Your task to perform on an android device: change the clock display to digital Image 0: 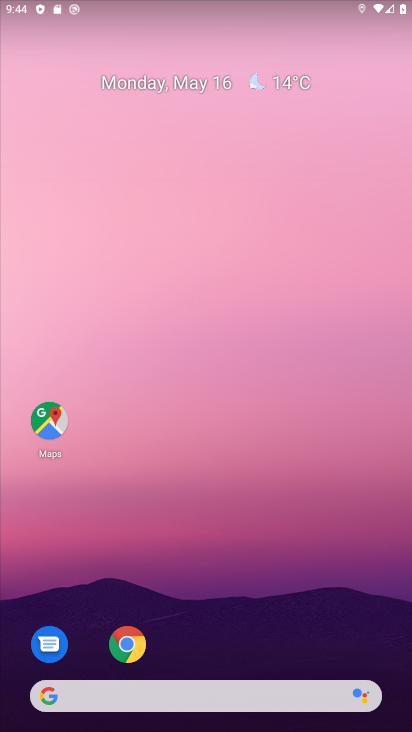
Step 0: drag from (238, 630) to (258, 227)
Your task to perform on an android device: change the clock display to digital Image 1: 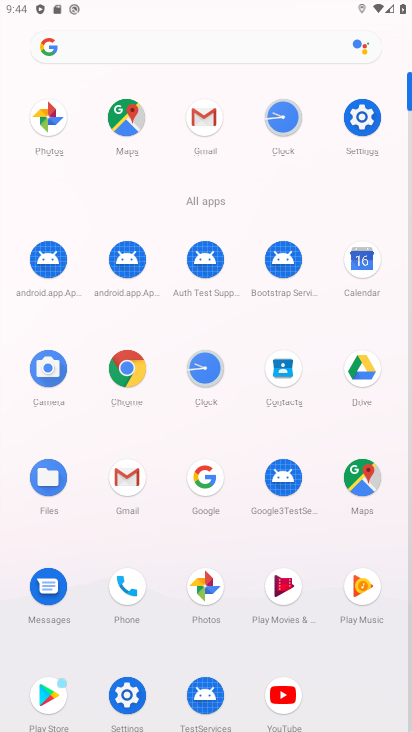
Step 1: click (207, 361)
Your task to perform on an android device: change the clock display to digital Image 2: 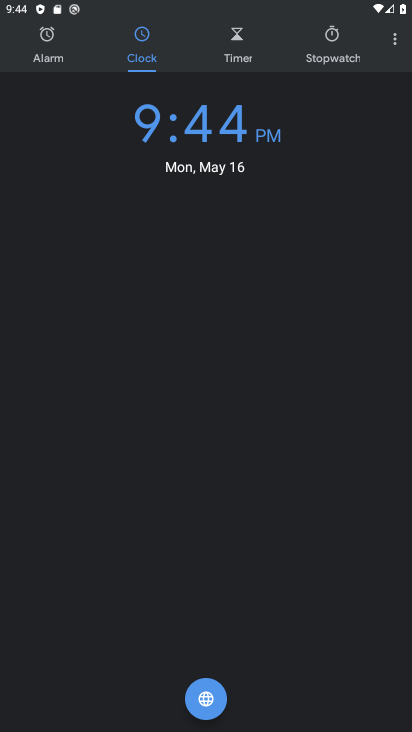
Step 2: click (399, 55)
Your task to perform on an android device: change the clock display to digital Image 3: 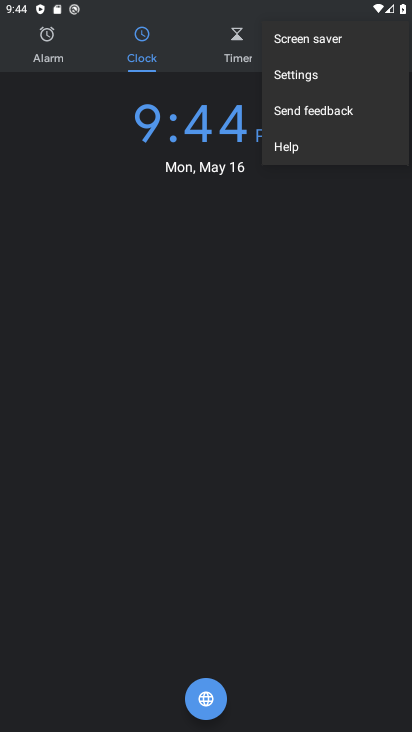
Step 3: click (307, 78)
Your task to perform on an android device: change the clock display to digital Image 4: 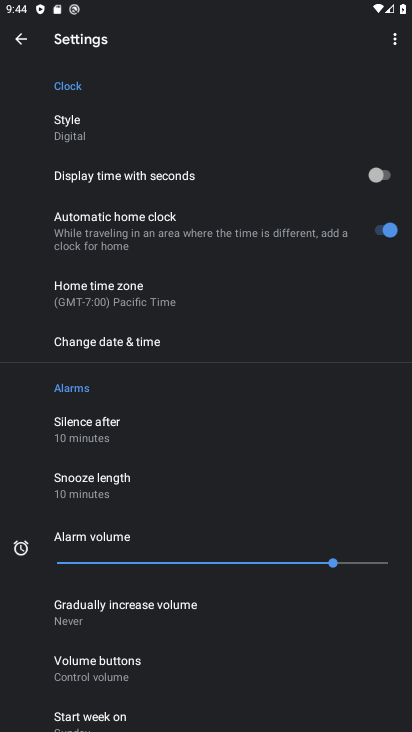
Step 4: task complete